Your task to perform on an android device: turn off airplane mode Image 0: 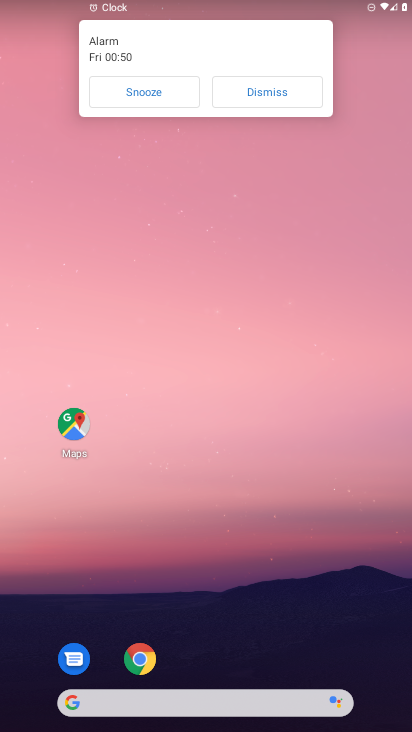
Step 0: click (276, 86)
Your task to perform on an android device: turn off airplane mode Image 1: 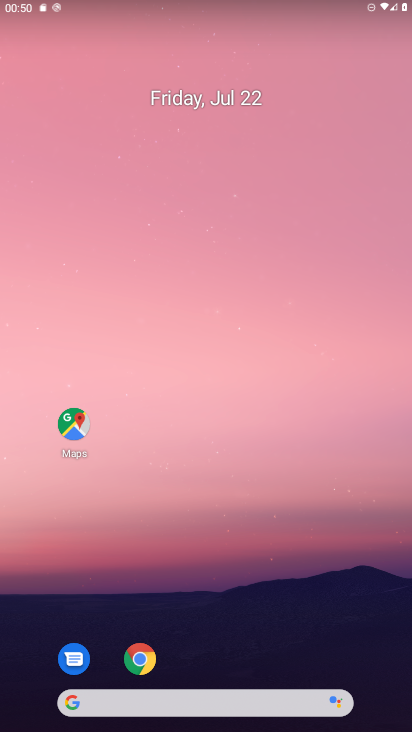
Step 1: drag from (203, 709) to (187, 194)
Your task to perform on an android device: turn off airplane mode Image 2: 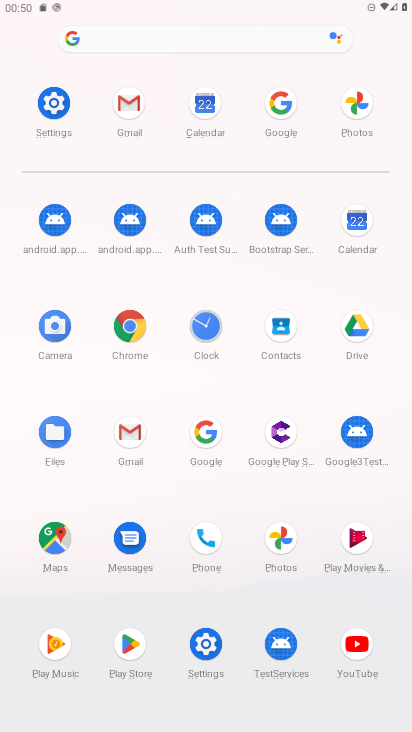
Step 2: click (207, 645)
Your task to perform on an android device: turn off airplane mode Image 3: 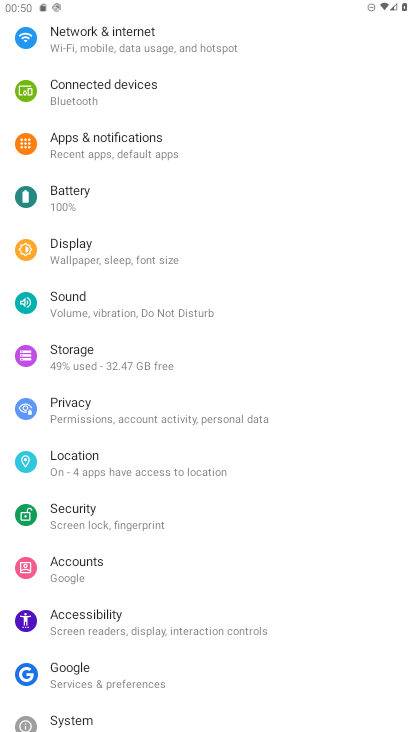
Step 3: drag from (108, 91) to (118, 248)
Your task to perform on an android device: turn off airplane mode Image 4: 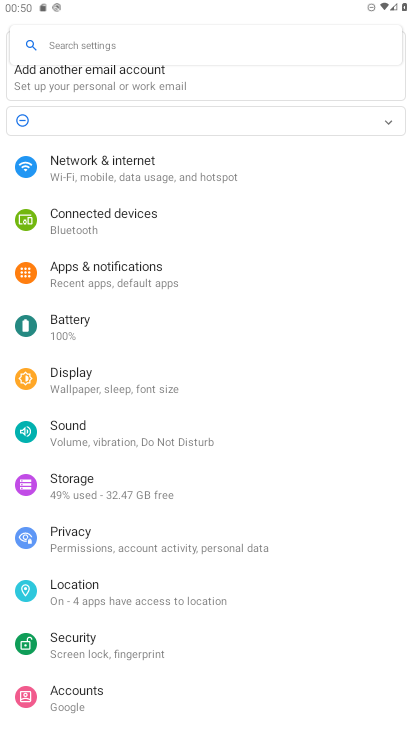
Step 4: click (121, 164)
Your task to perform on an android device: turn off airplane mode Image 5: 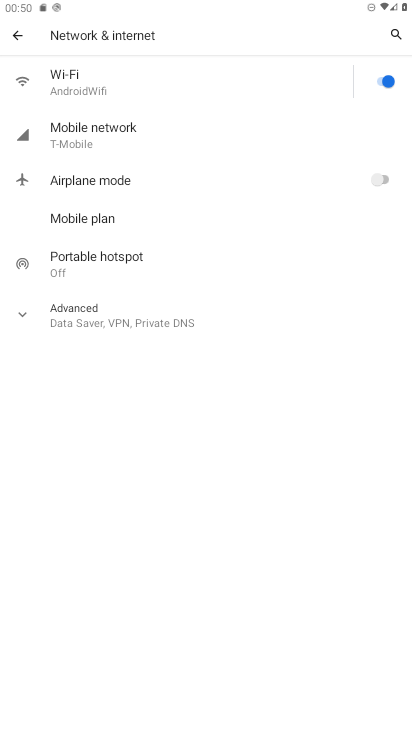
Step 5: task complete